Your task to perform on an android device: Open calendar and show me the first week of next month Image 0: 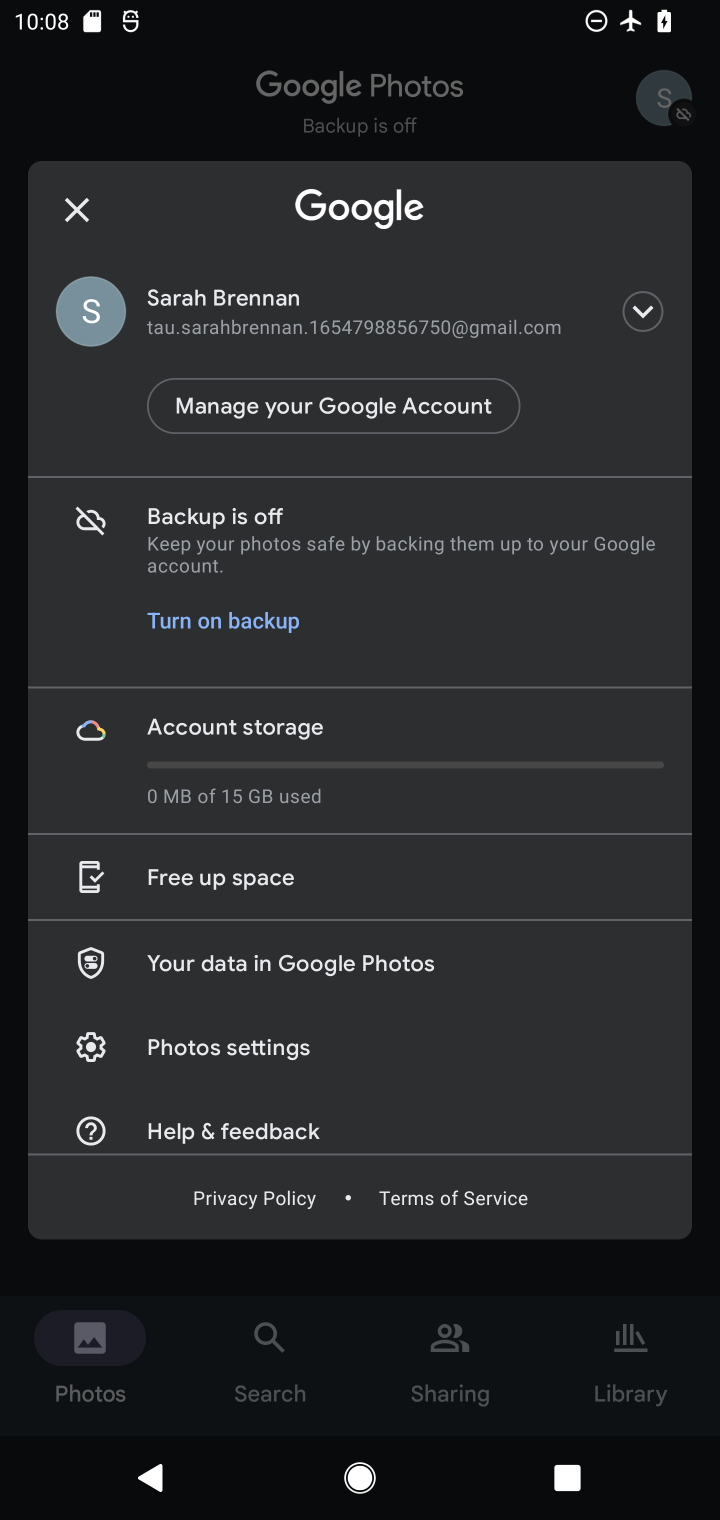
Step 0: press home button
Your task to perform on an android device: Open calendar and show me the first week of next month Image 1: 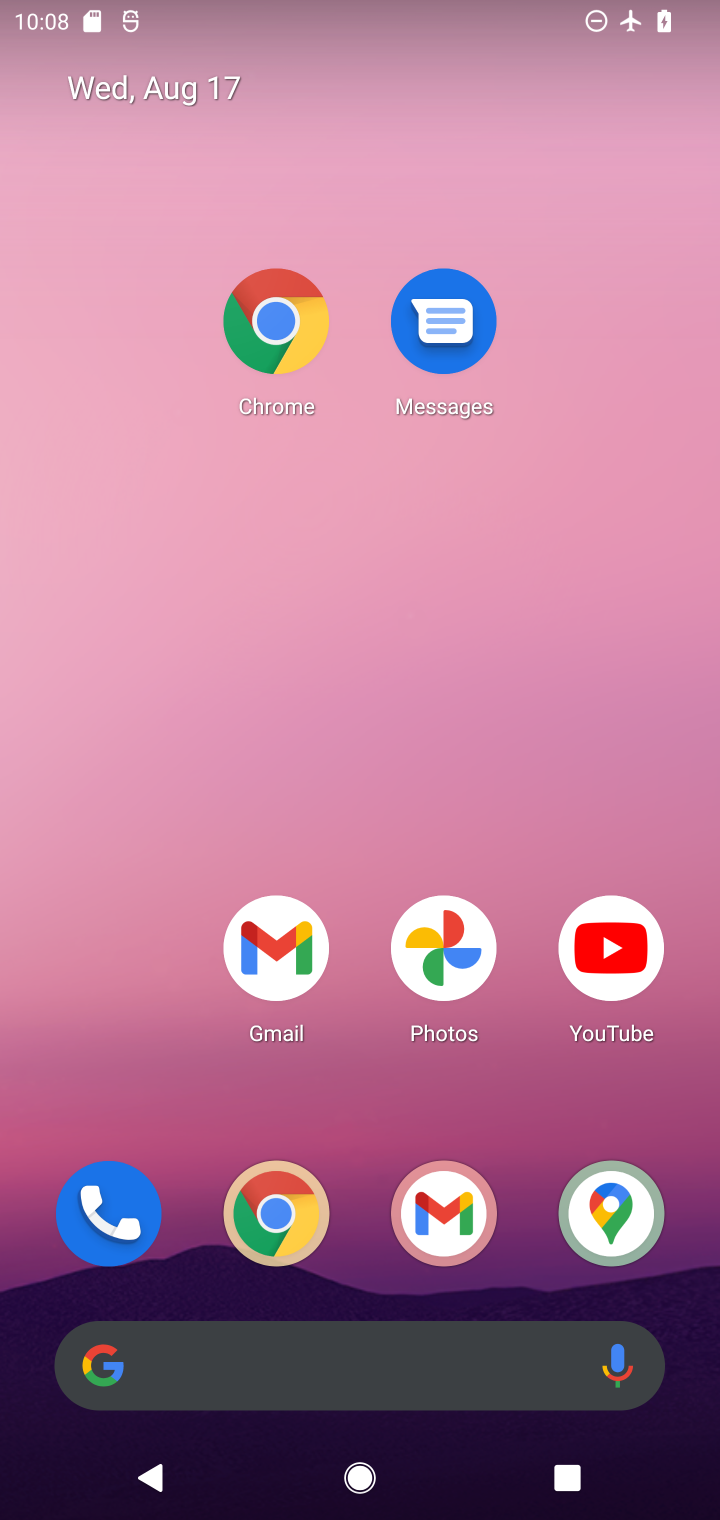
Step 1: drag from (345, 1297) to (363, 156)
Your task to perform on an android device: Open calendar and show me the first week of next month Image 2: 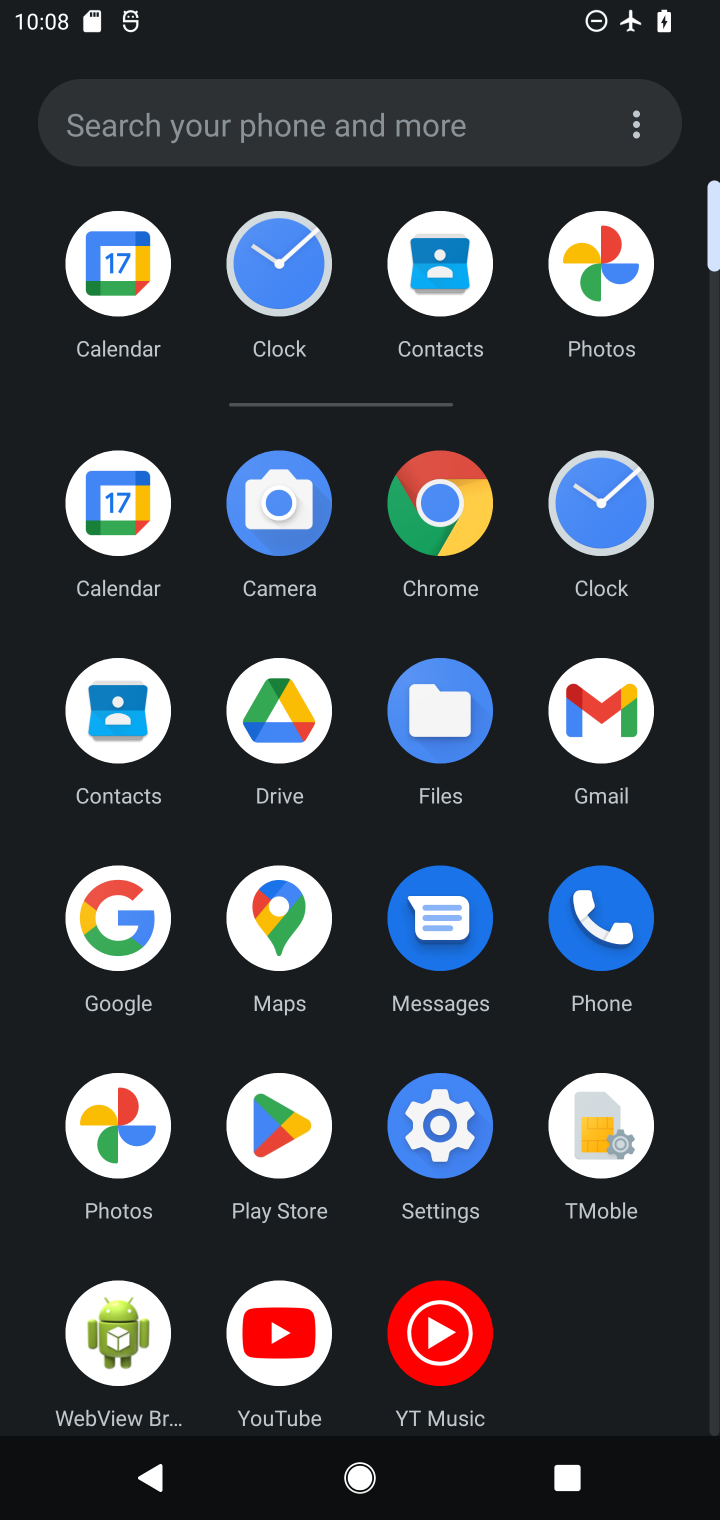
Step 2: click (148, 329)
Your task to perform on an android device: Open calendar and show me the first week of next month Image 3: 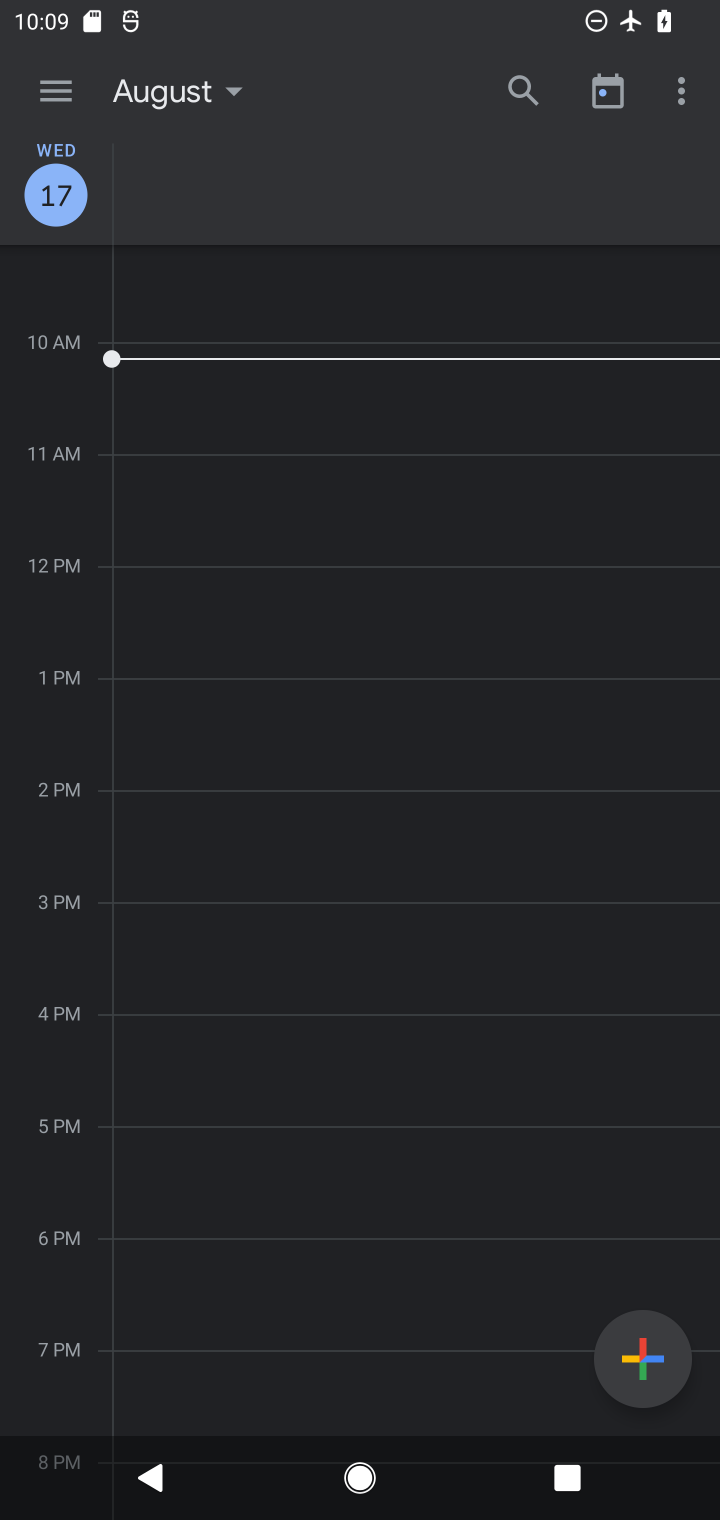
Step 3: task complete